Your task to perform on an android device: When is my next appointment? Image 0: 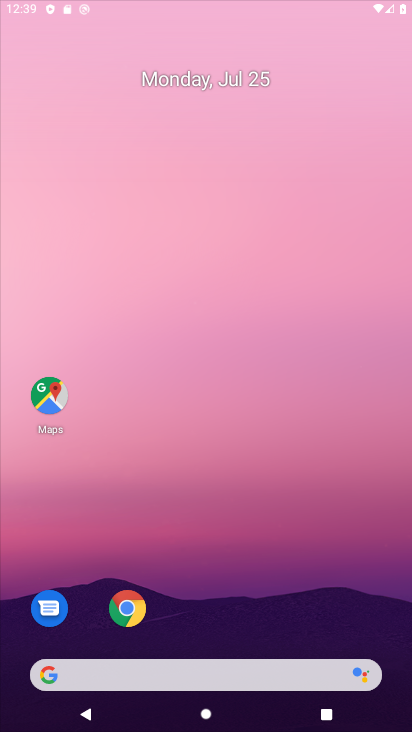
Step 0: drag from (156, 397) to (409, 608)
Your task to perform on an android device: When is my next appointment? Image 1: 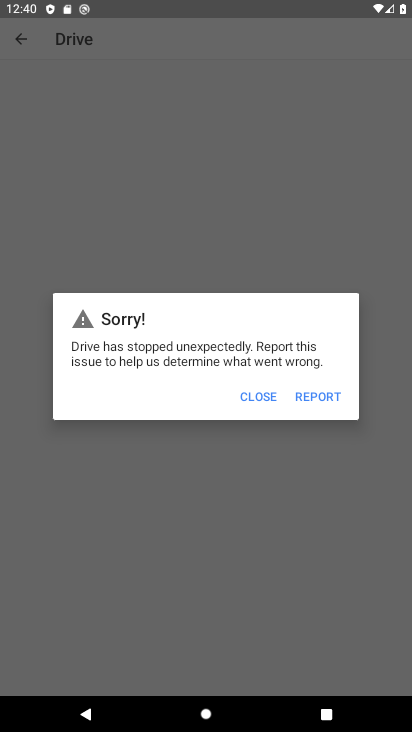
Step 1: press home button
Your task to perform on an android device: When is my next appointment? Image 2: 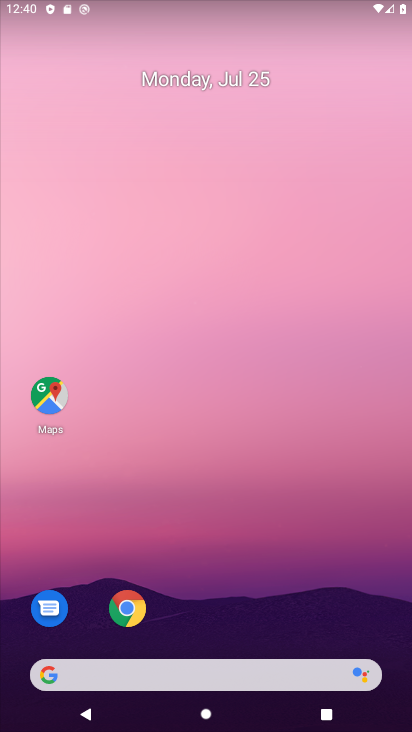
Step 2: drag from (259, 511) to (251, 102)
Your task to perform on an android device: When is my next appointment? Image 3: 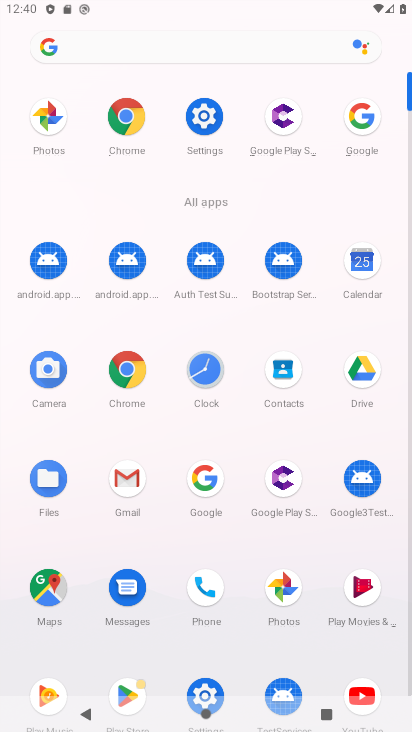
Step 3: click (363, 266)
Your task to perform on an android device: When is my next appointment? Image 4: 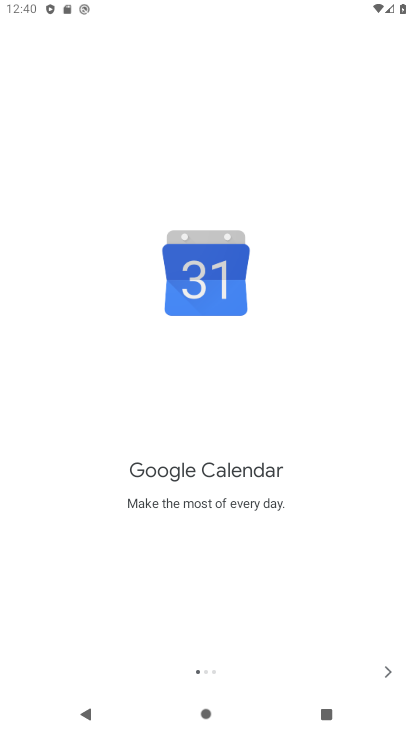
Step 4: click (383, 670)
Your task to perform on an android device: When is my next appointment? Image 5: 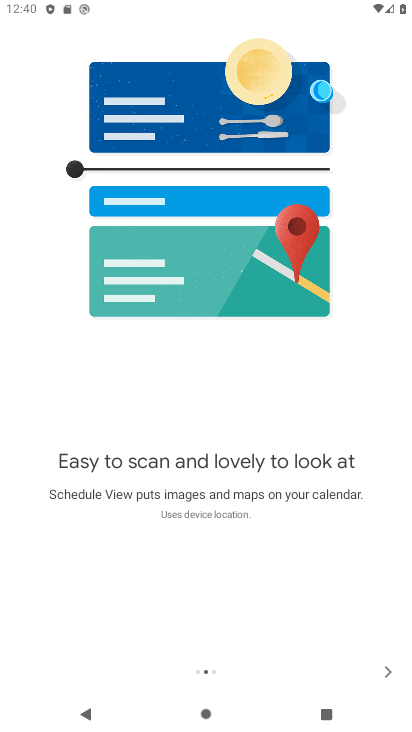
Step 5: click (388, 668)
Your task to perform on an android device: When is my next appointment? Image 6: 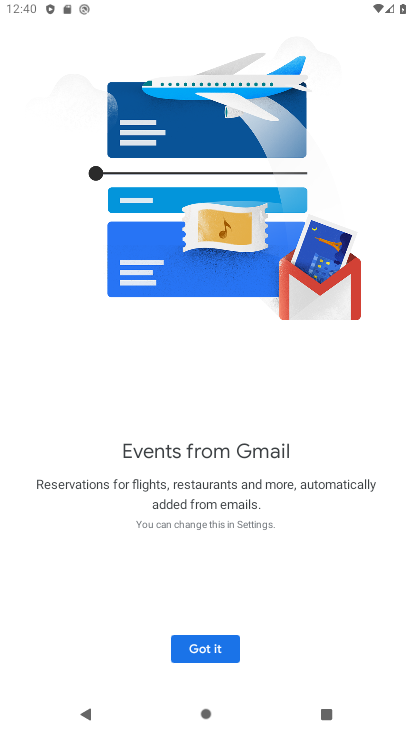
Step 6: click (217, 652)
Your task to perform on an android device: When is my next appointment? Image 7: 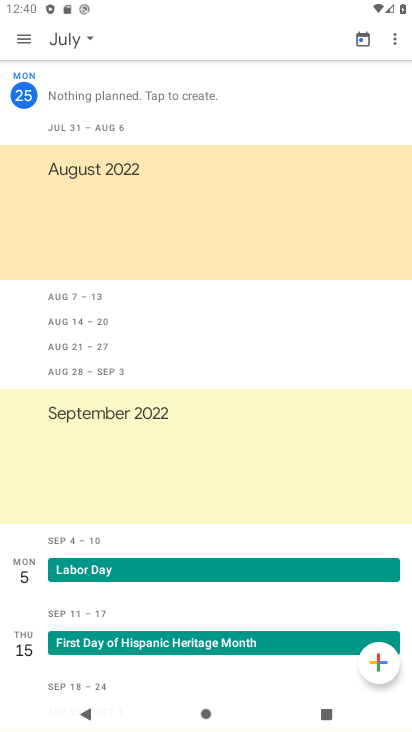
Step 7: click (23, 28)
Your task to perform on an android device: When is my next appointment? Image 8: 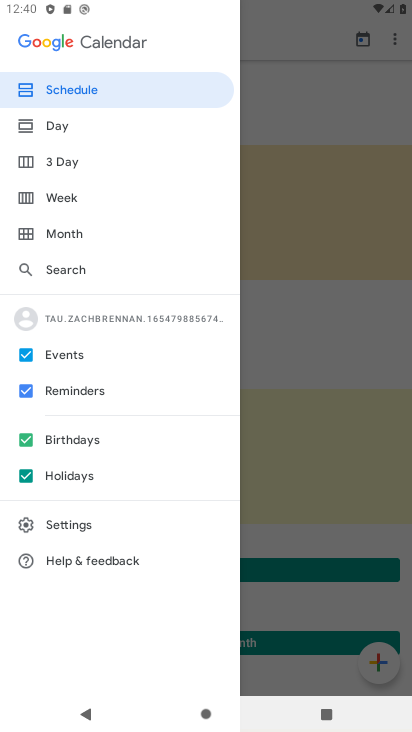
Step 8: click (77, 205)
Your task to perform on an android device: When is my next appointment? Image 9: 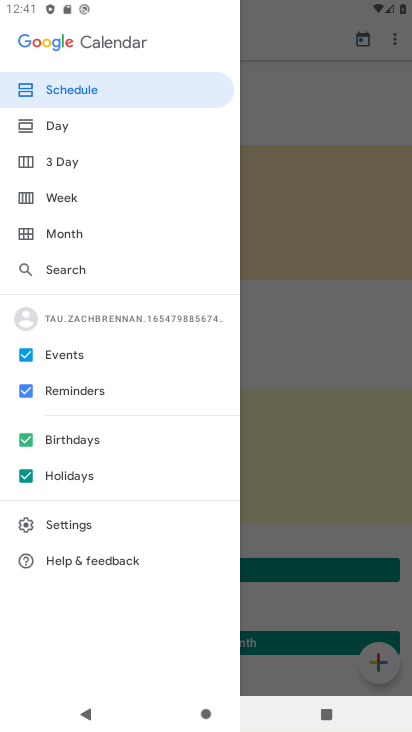
Step 9: click (36, 192)
Your task to perform on an android device: When is my next appointment? Image 10: 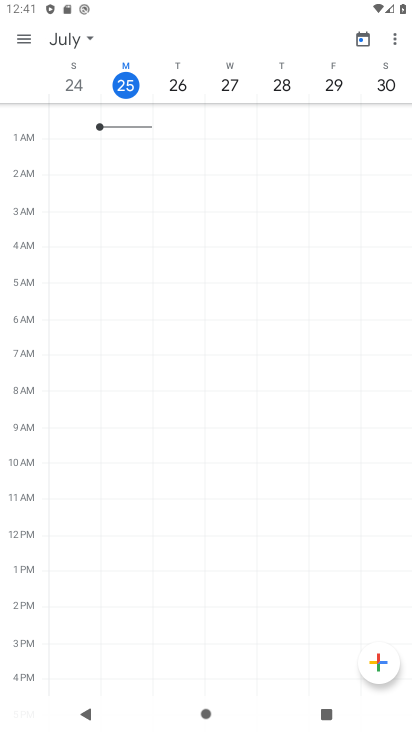
Step 10: task complete